Your task to perform on an android device: Go to settings Image 0: 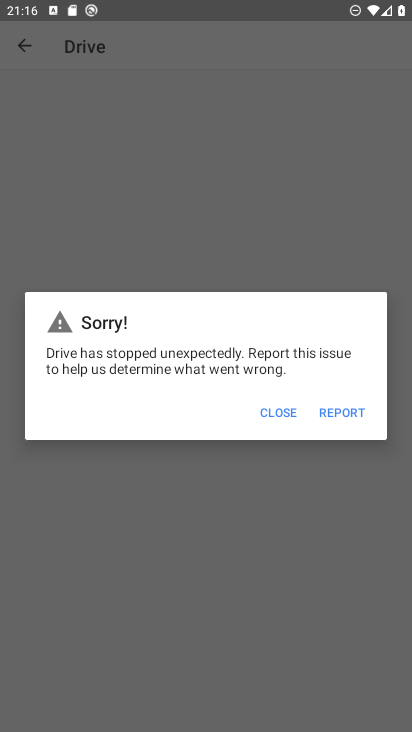
Step 0: press home button
Your task to perform on an android device: Go to settings Image 1: 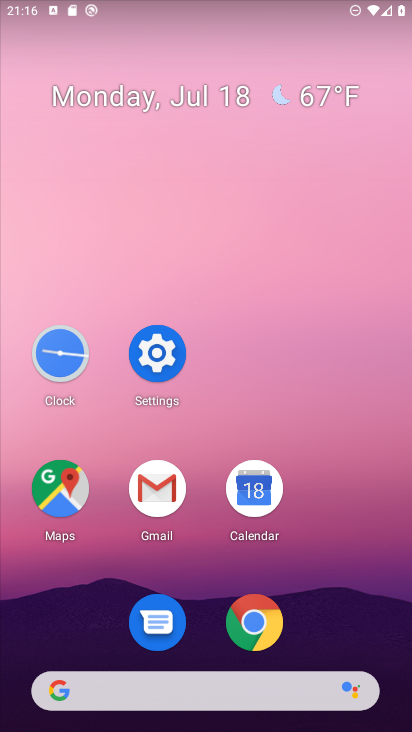
Step 1: click (159, 357)
Your task to perform on an android device: Go to settings Image 2: 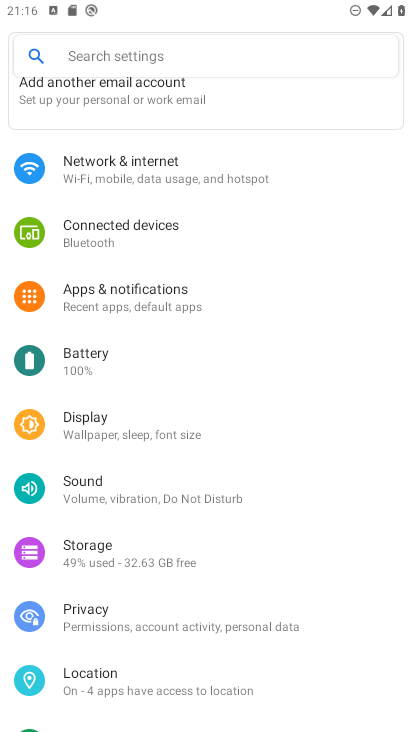
Step 2: task complete